Your task to perform on an android device: Show me popular games on the Play Store Image 0: 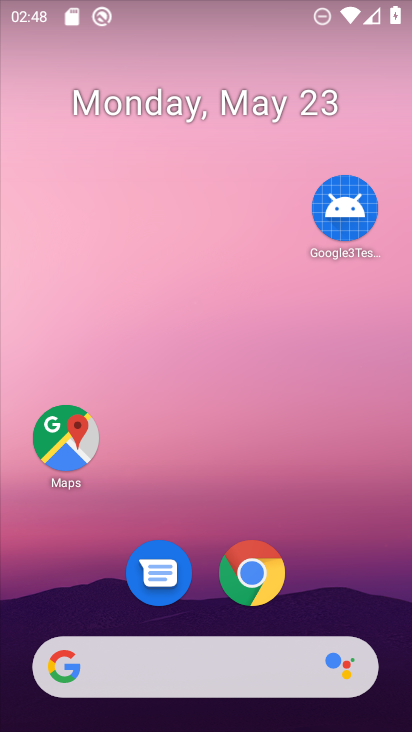
Step 0: drag from (319, 560) to (189, 159)
Your task to perform on an android device: Show me popular games on the Play Store Image 1: 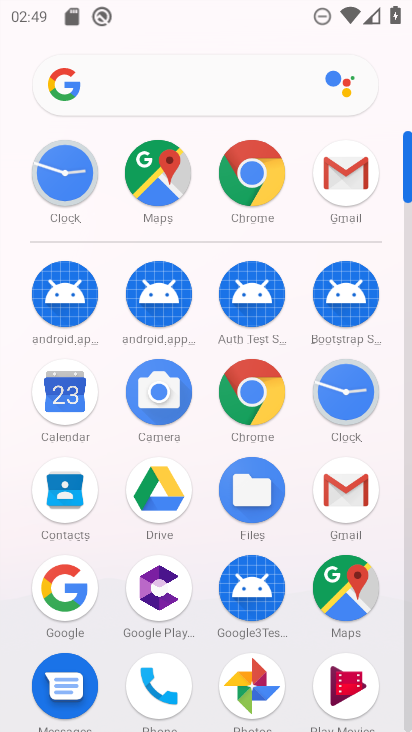
Step 1: drag from (302, 548) to (245, 179)
Your task to perform on an android device: Show me popular games on the Play Store Image 2: 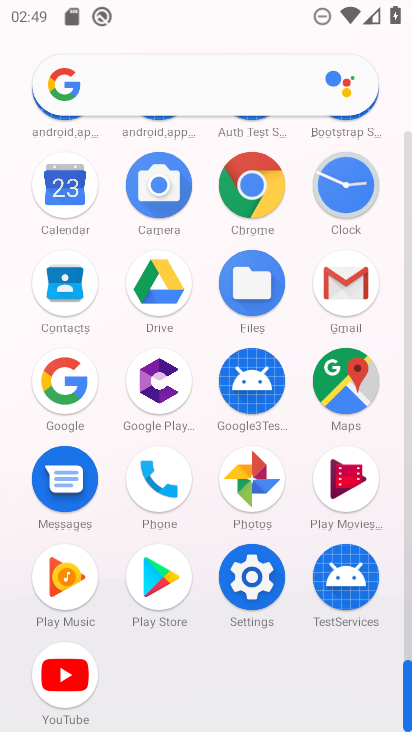
Step 2: click (148, 577)
Your task to perform on an android device: Show me popular games on the Play Store Image 3: 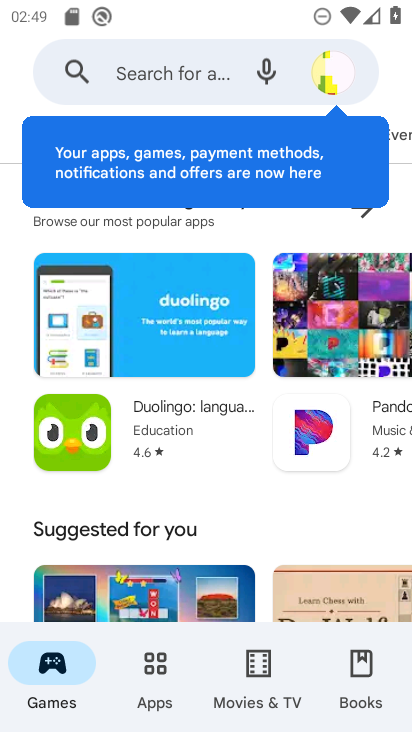
Step 3: drag from (173, 492) to (111, 65)
Your task to perform on an android device: Show me popular games on the Play Store Image 4: 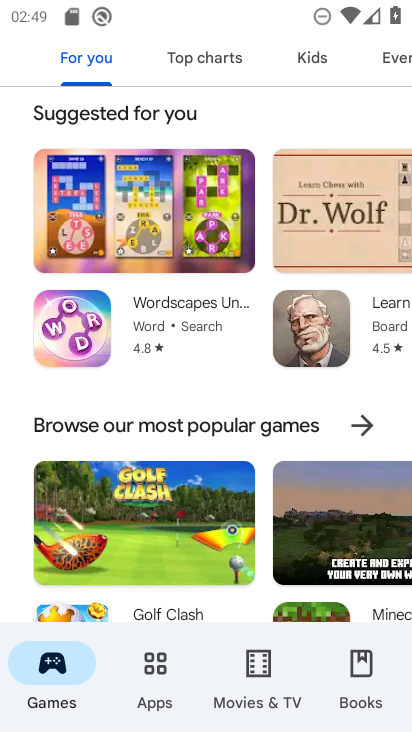
Step 4: drag from (172, 473) to (199, 93)
Your task to perform on an android device: Show me popular games on the Play Store Image 5: 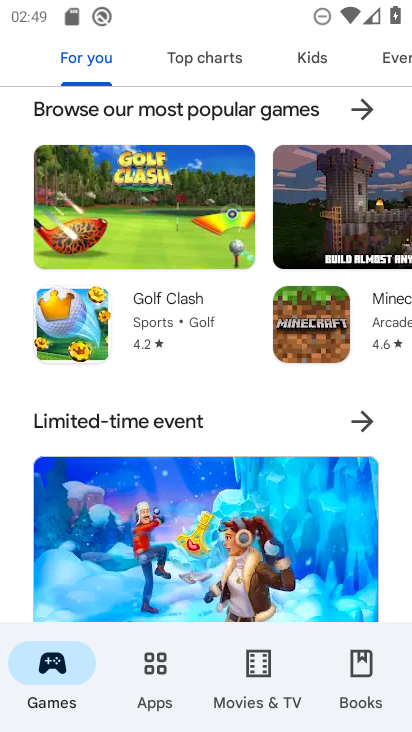
Step 5: drag from (219, 413) to (198, 169)
Your task to perform on an android device: Show me popular games on the Play Store Image 6: 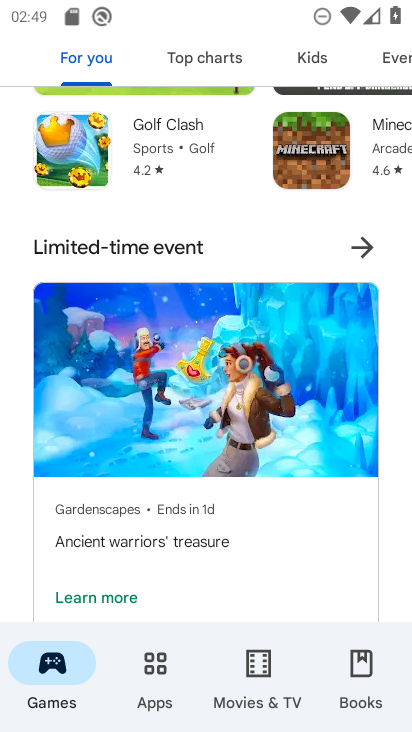
Step 6: drag from (187, 433) to (197, 166)
Your task to perform on an android device: Show me popular games on the Play Store Image 7: 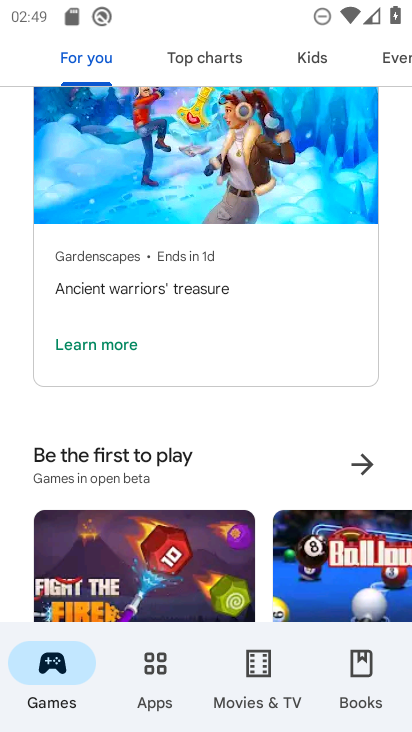
Step 7: drag from (196, 529) to (161, 214)
Your task to perform on an android device: Show me popular games on the Play Store Image 8: 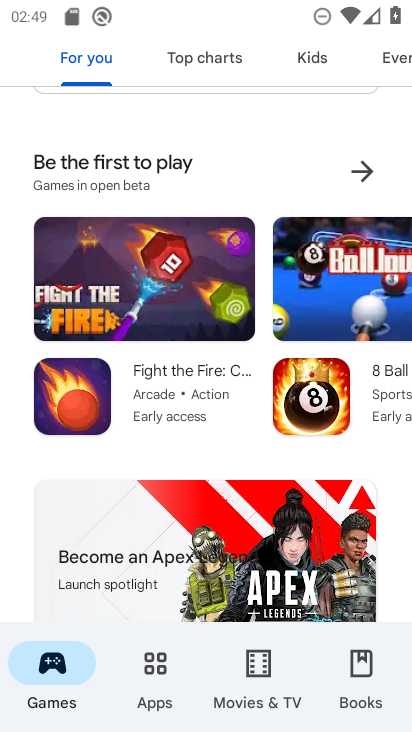
Step 8: drag from (158, 554) to (155, 181)
Your task to perform on an android device: Show me popular games on the Play Store Image 9: 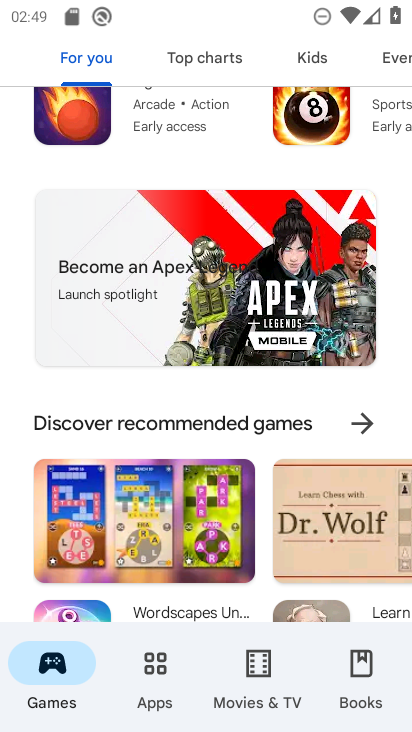
Step 9: drag from (154, 476) to (159, 165)
Your task to perform on an android device: Show me popular games on the Play Store Image 10: 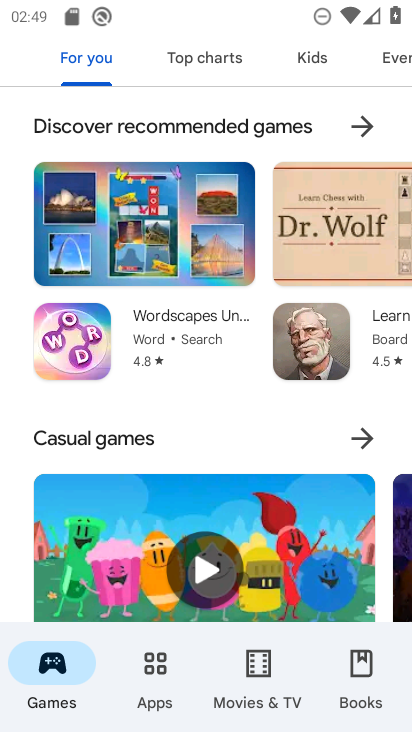
Step 10: drag from (155, 502) to (164, 195)
Your task to perform on an android device: Show me popular games on the Play Store Image 11: 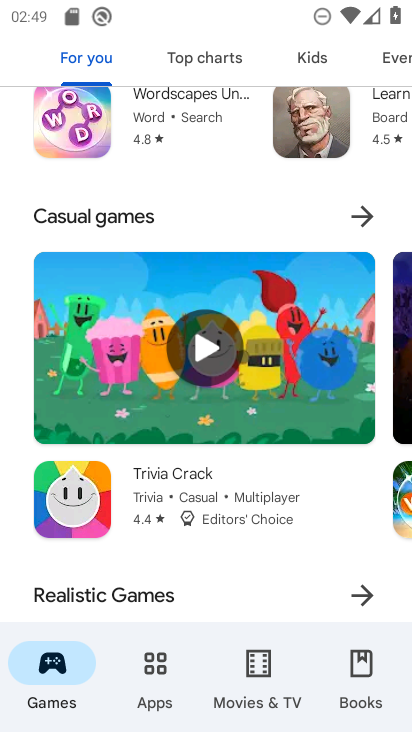
Step 11: drag from (163, 511) to (129, 188)
Your task to perform on an android device: Show me popular games on the Play Store Image 12: 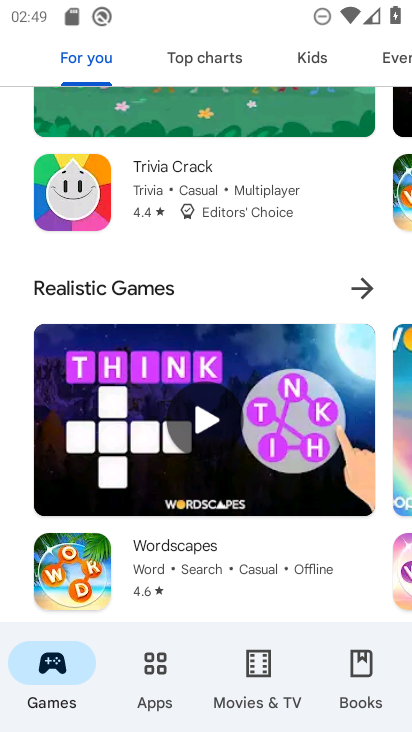
Step 12: drag from (156, 502) to (181, 244)
Your task to perform on an android device: Show me popular games on the Play Store Image 13: 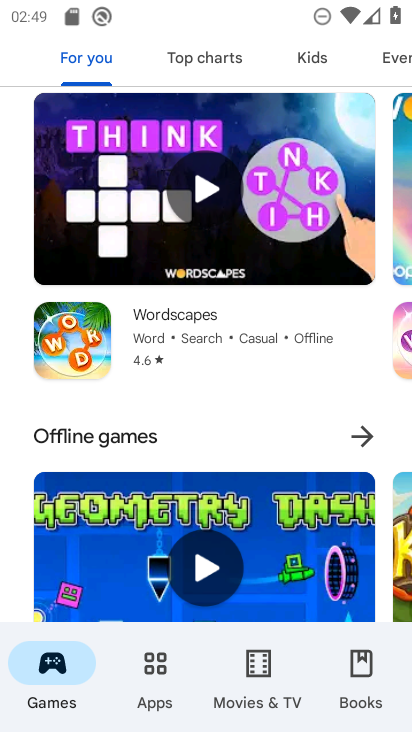
Step 13: drag from (123, 555) to (103, 232)
Your task to perform on an android device: Show me popular games on the Play Store Image 14: 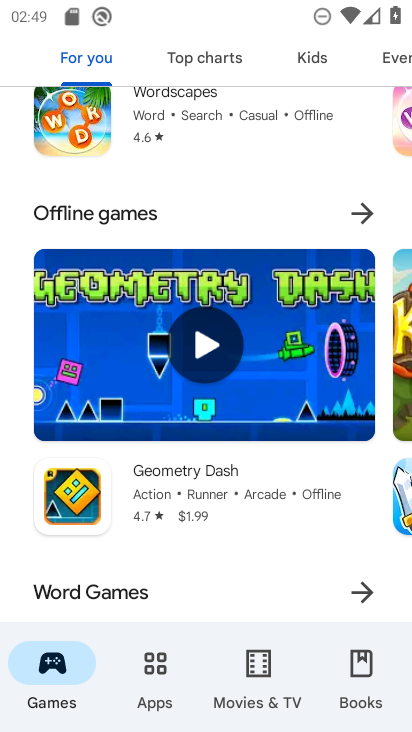
Step 14: drag from (168, 578) to (189, 179)
Your task to perform on an android device: Show me popular games on the Play Store Image 15: 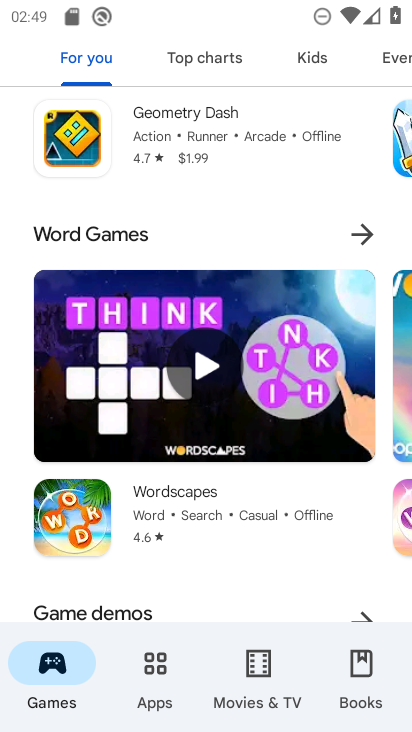
Step 15: drag from (227, 542) to (205, 203)
Your task to perform on an android device: Show me popular games on the Play Store Image 16: 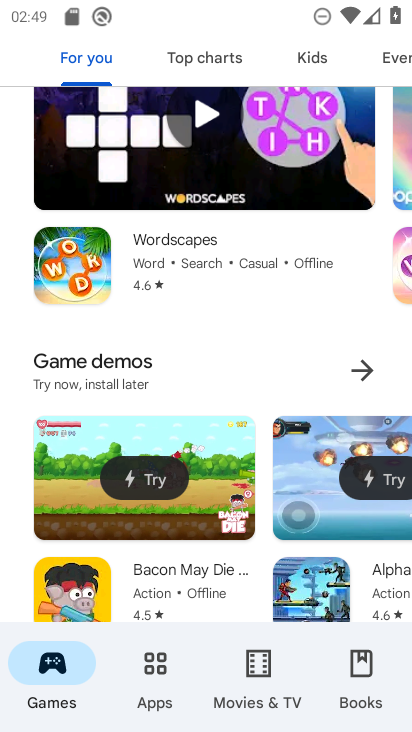
Step 16: drag from (205, 619) to (281, 185)
Your task to perform on an android device: Show me popular games on the Play Store Image 17: 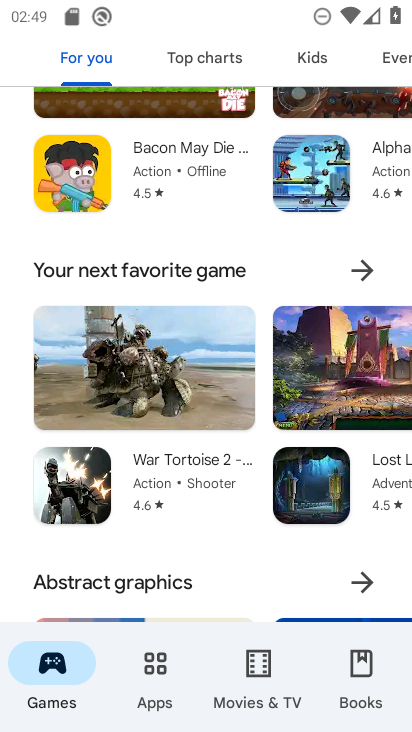
Step 17: drag from (232, 554) to (220, 187)
Your task to perform on an android device: Show me popular games on the Play Store Image 18: 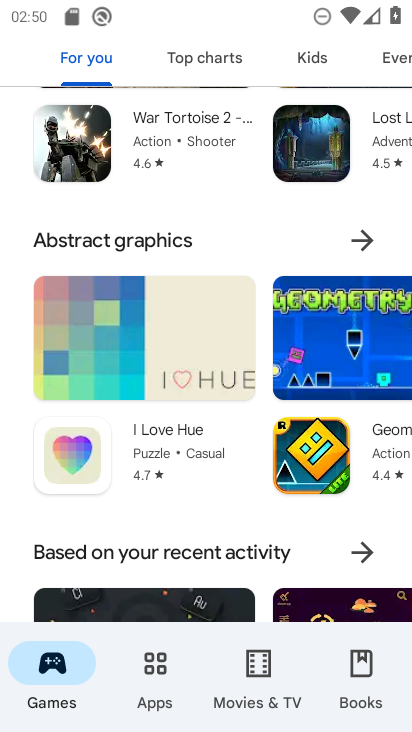
Step 18: drag from (231, 539) to (226, 206)
Your task to perform on an android device: Show me popular games on the Play Store Image 19: 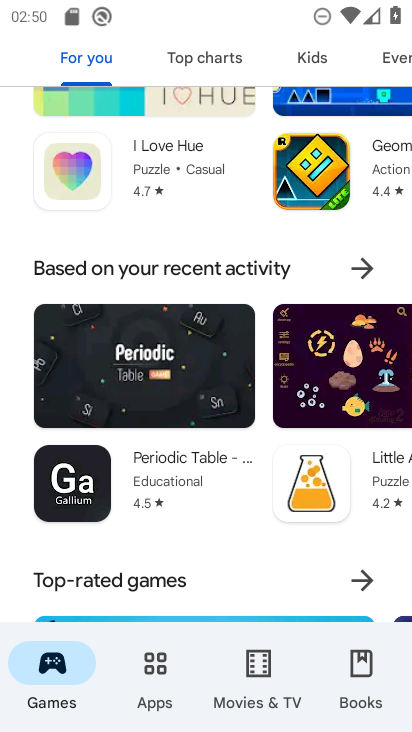
Step 19: click (226, 203)
Your task to perform on an android device: Show me popular games on the Play Store Image 20: 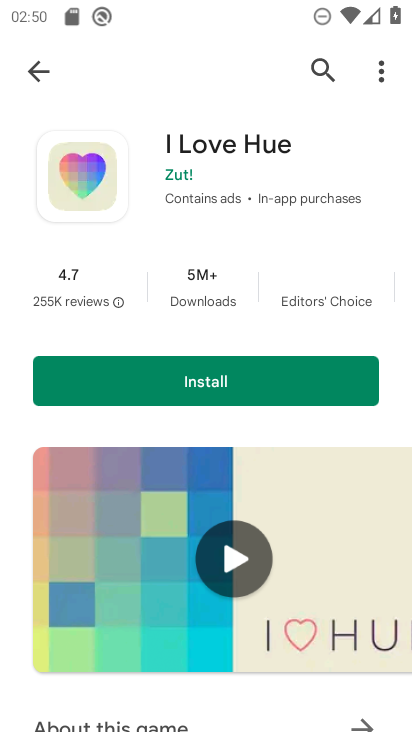
Step 20: drag from (241, 590) to (234, 258)
Your task to perform on an android device: Show me popular games on the Play Store Image 21: 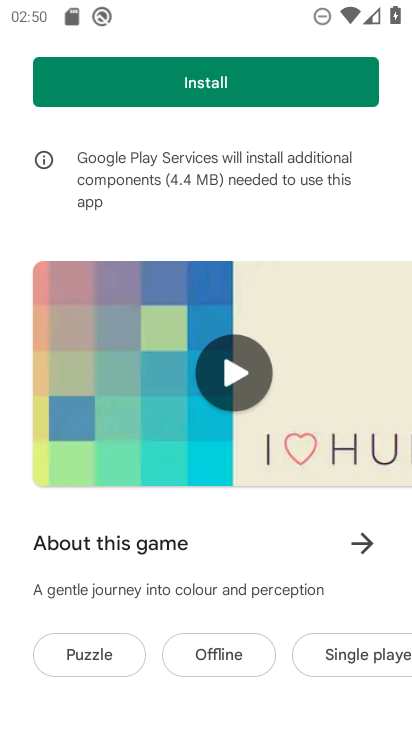
Step 21: drag from (71, 195) to (88, 558)
Your task to perform on an android device: Show me popular games on the Play Store Image 22: 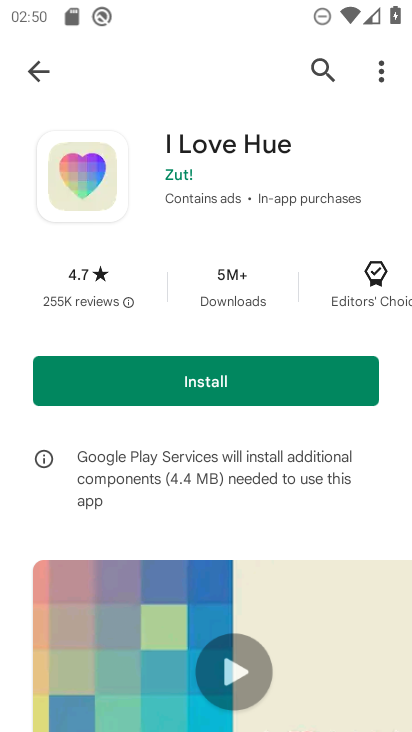
Step 22: click (29, 67)
Your task to perform on an android device: Show me popular games on the Play Store Image 23: 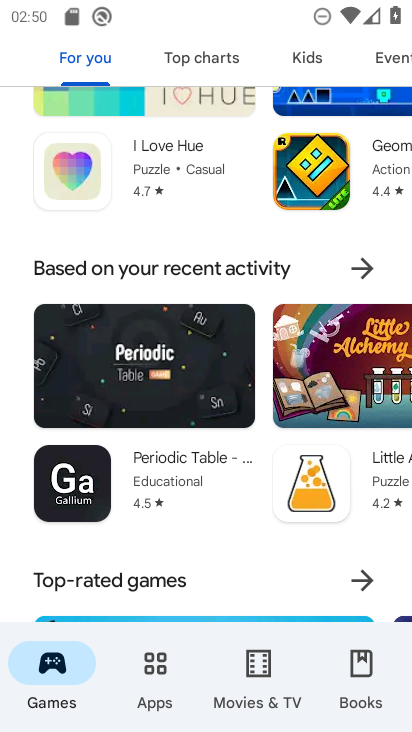
Step 23: task complete